Your task to perform on an android device: delete browsing data in the chrome app Image 0: 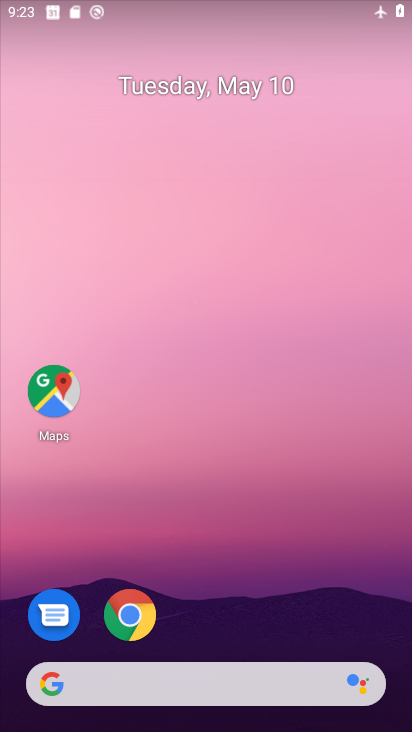
Step 0: click (181, 180)
Your task to perform on an android device: delete browsing data in the chrome app Image 1: 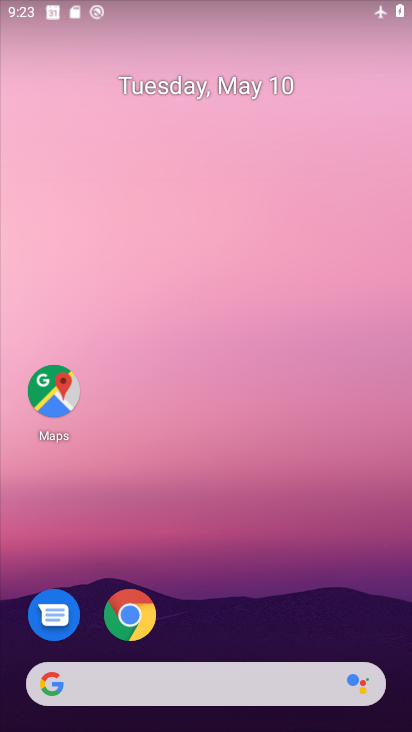
Step 1: drag from (219, 604) to (215, 179)
Your task to perform on an android device: delete browsing data in the chrome app Image 2: 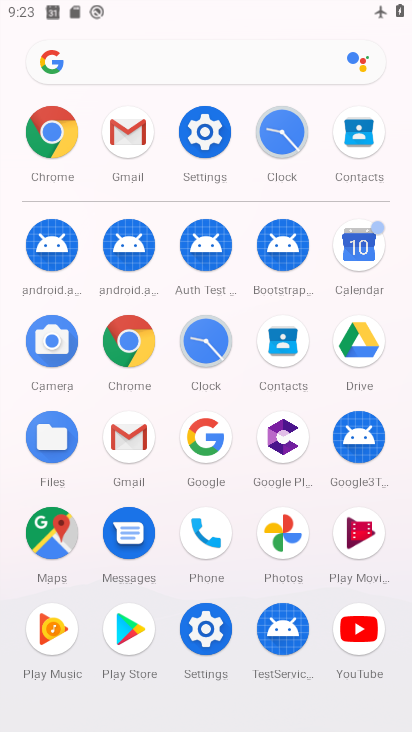
Step 2: click (131, 340)
Your task to perform on an android device: delete browsing data in the chrome app Image 3: 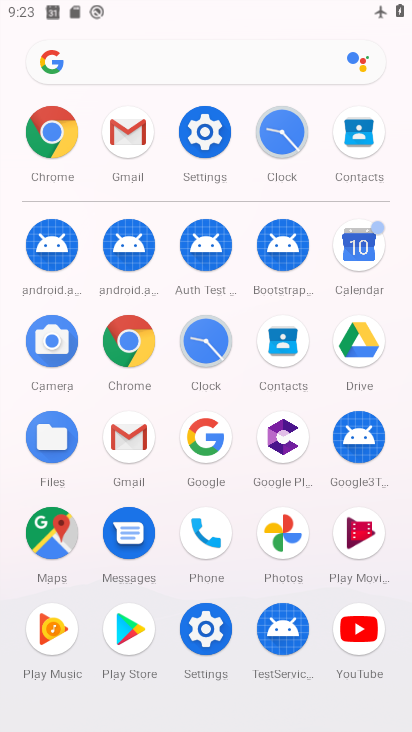
Step 3: click (131, 340)
Your task to perform on an android device: delete browsing data in the chrome app Image 4: 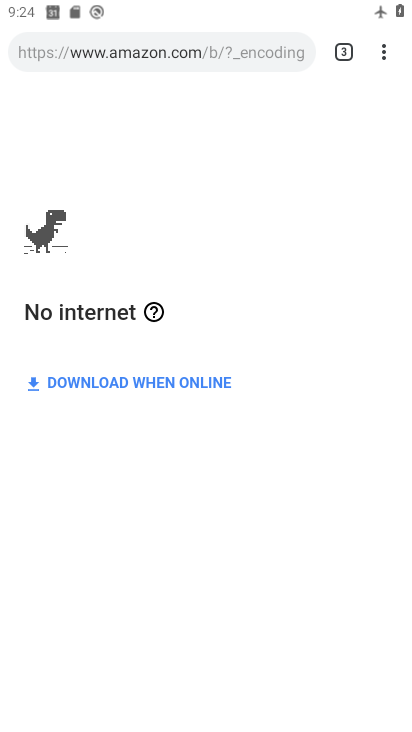
Step 4: click (393, 49)
Your task to perform on an android device: delete browsing data in the chrome app Image 5: 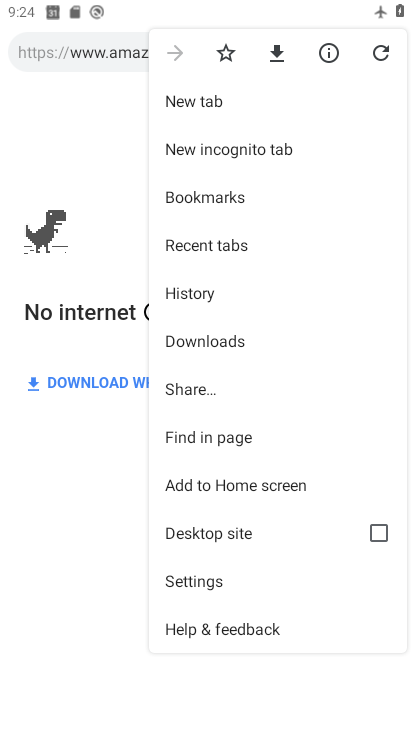
Step 5: click (211, 299)
Your task to perform on an android device: delete browsing data in the chrome app Image 6: 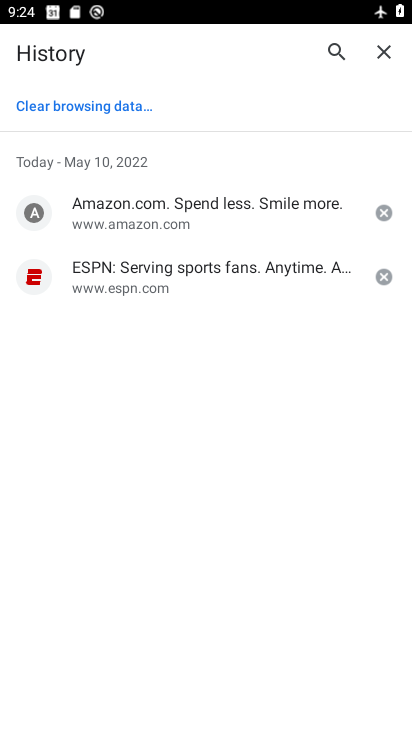
Step 6: click (85, 101)
Your task to perform on an android device: delete browsing data in the chrome app Image 7: 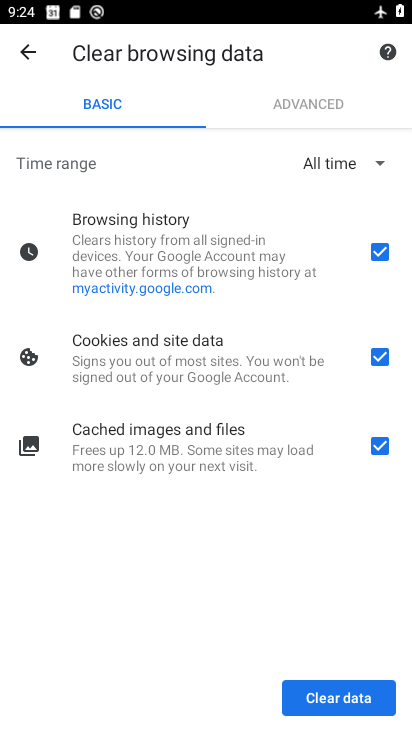
Step 7: click (357, 731)
Your task to perform on an android device: delete browsing data in the chrome app Image 8: 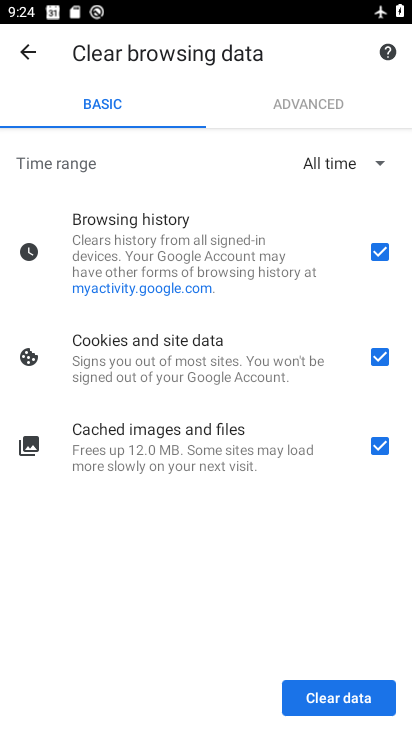
Step 8: click (337, 693)
Your task to perform on an android device: delete browsing data in the chrome app Image 9: 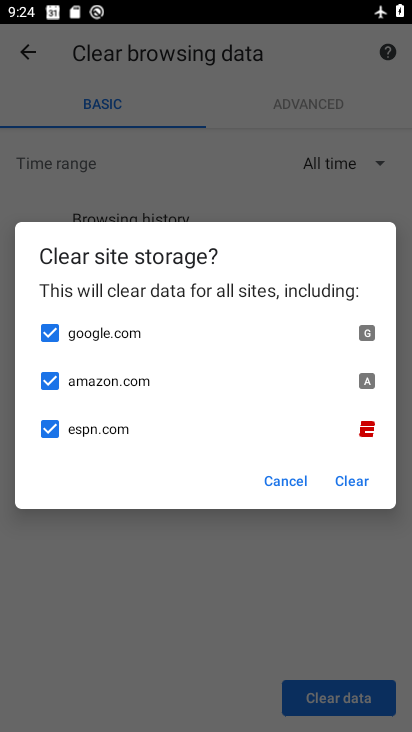
Step 9: click (378, 473)
Your task to perform on an android device: delete browsing data in the chrome app Image 10: 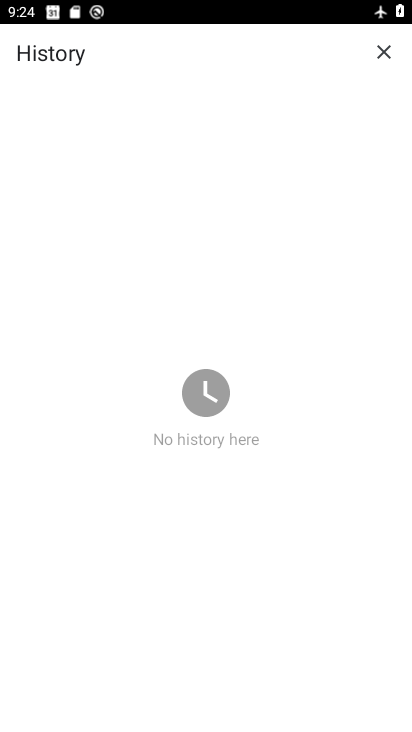
Step 10: task complete